Your task to perform on an android device: Do I have any events today? Image 0: 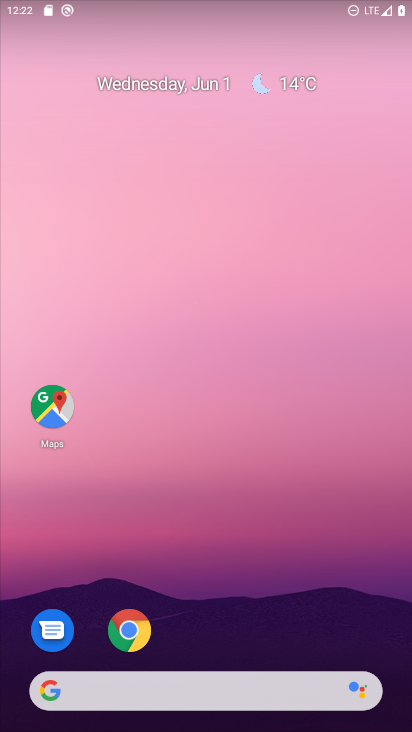
Step 0: drag from (311, 587) to (263, 45)
Your task to perform on an android device: Do I have any events today? Image 1: 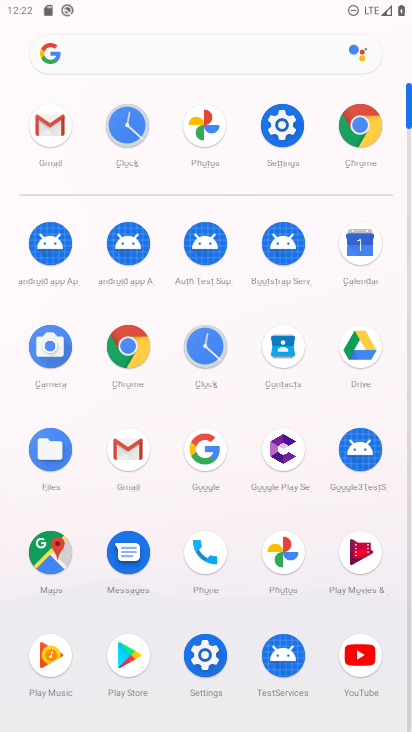
Step 1: click (359, 245)
Your task to perform on an android device: Do I have any events today? Image 2: 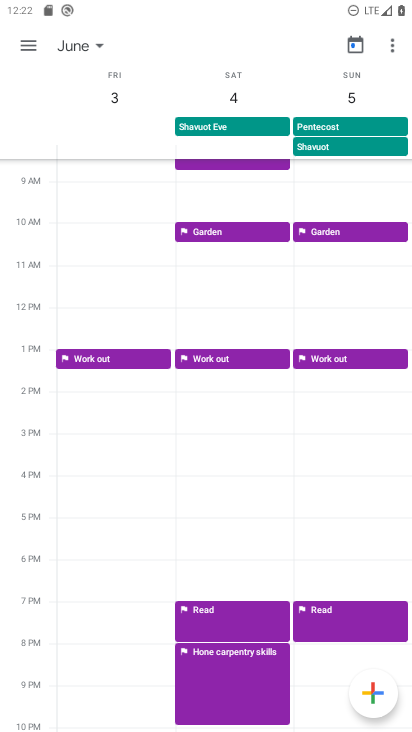
Step 2: drag from (135, 77) to (358, 68)
Your task to perform on an android device: Do I have any events today? Image 3: 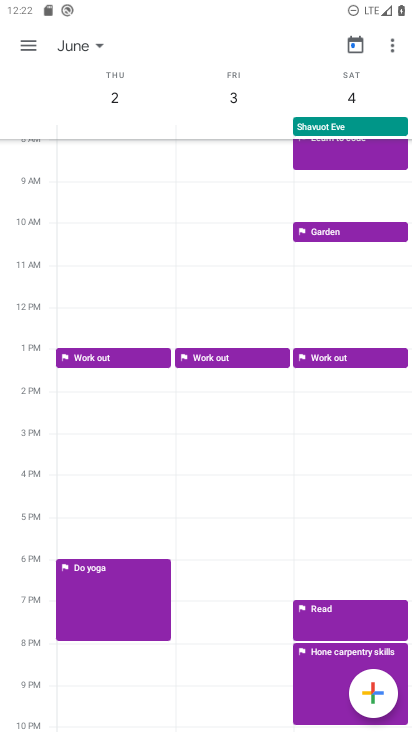
Step 3: drag from (113, 91) to (408, 98)
Your task to perform on an android device: Do I have any events today? Image 4: 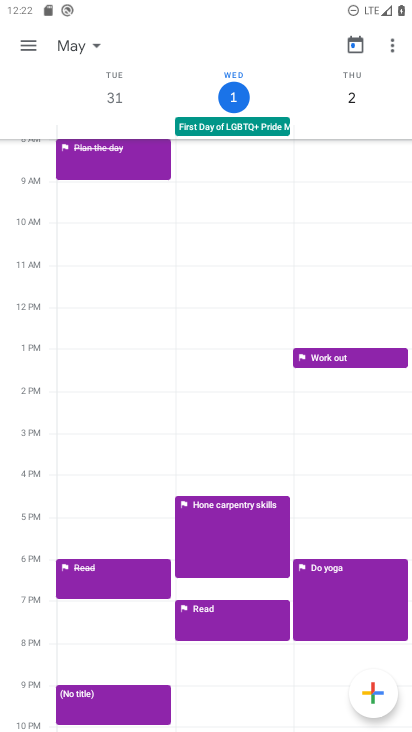
Step 4: click (377, 105)
Your task to perform on an android device: Do I have any events today? Image 5: 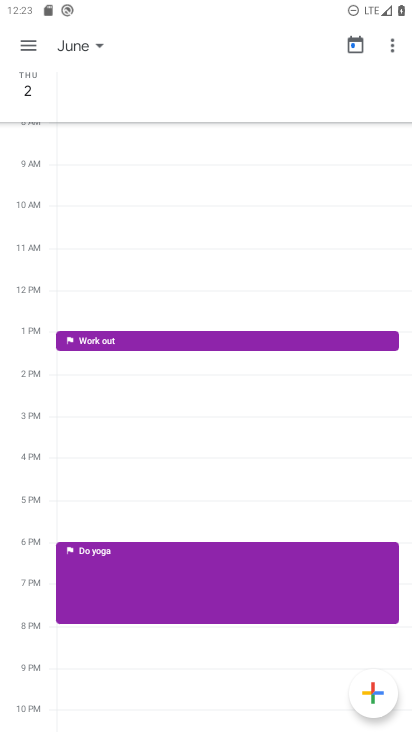
Step 5: task complete